Your task to perform on an android device: When is my next appointment? Image 0: 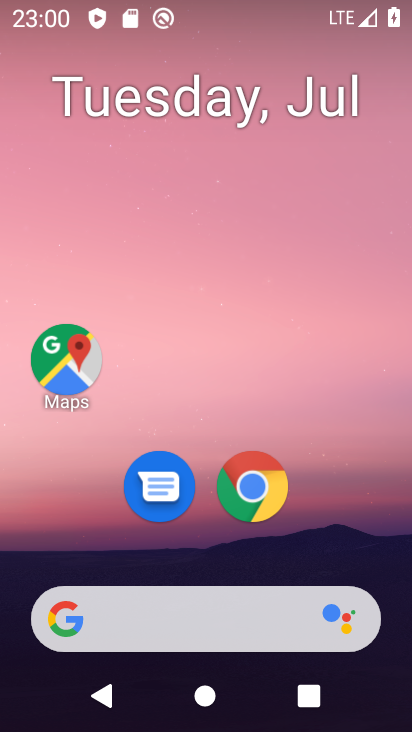
Step 0: drag from (339, 518) to (344, 123)
Your task to perform on an android device: When is my next appointment? Image 1: 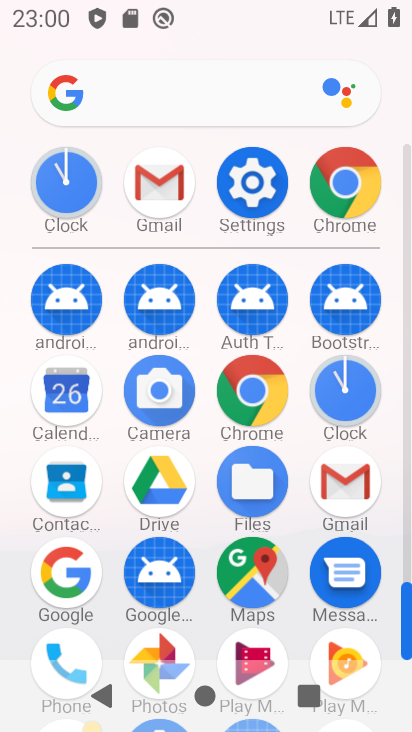
Step 1: click (69, 413)
Your task to perform on an android device: When is my next appointment? Image 2: 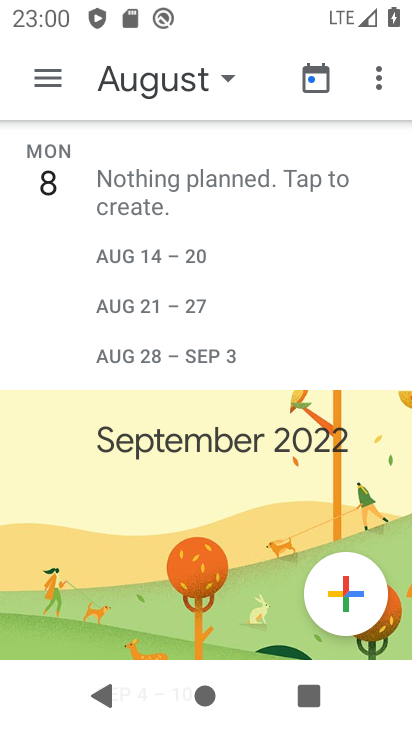
Step 2: task complete